Your task to perform on an android device: turn vacation reply on in the gmail app Image 0: 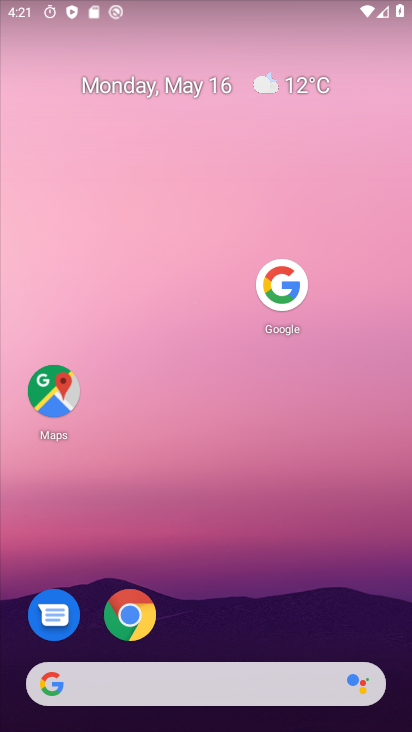
Step 0: drag from (222, 676) to (327, 12)
Your task to perform on an android device: turn vacation reply on in the gmail app Image 1: 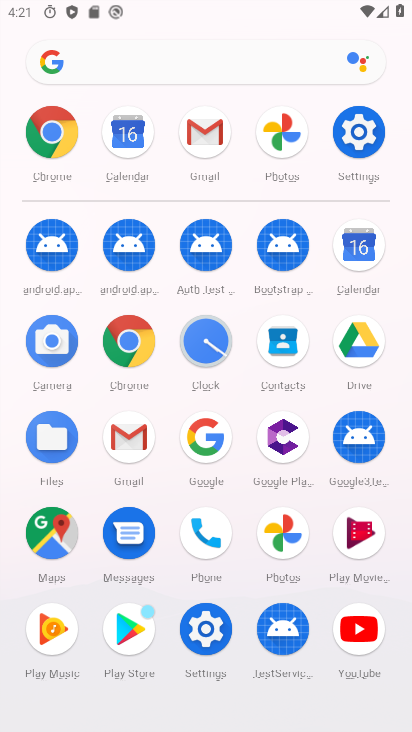
Step 1: click (120, 449)
Your task to perform on an android device: turn vacation reply on in the gmail app Image 2: 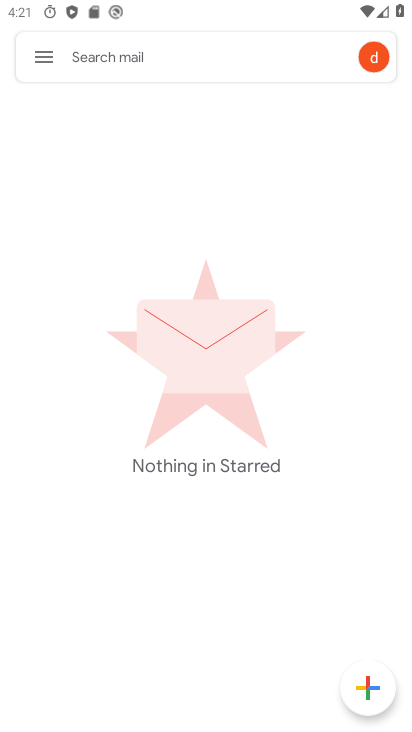
Step 2: click (50, 59)
Your task to perform on an android device: turn vacation reply on in the gmail app Image 3: 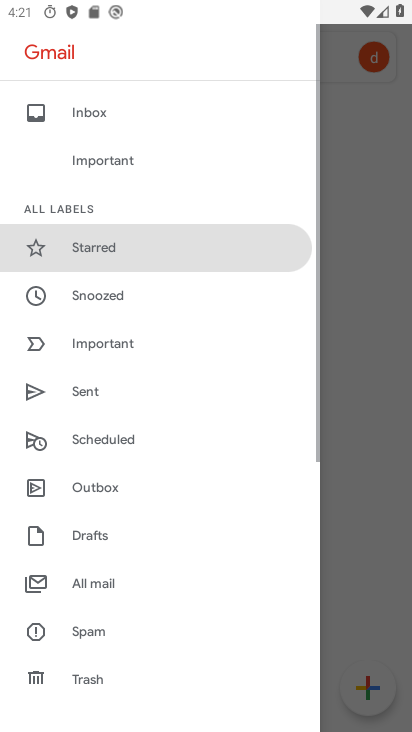
Step 3: drag from (176, 579) to (132, 59)
Your task to perform on an android device: turn vacation reply on in the gmail app Image 4: 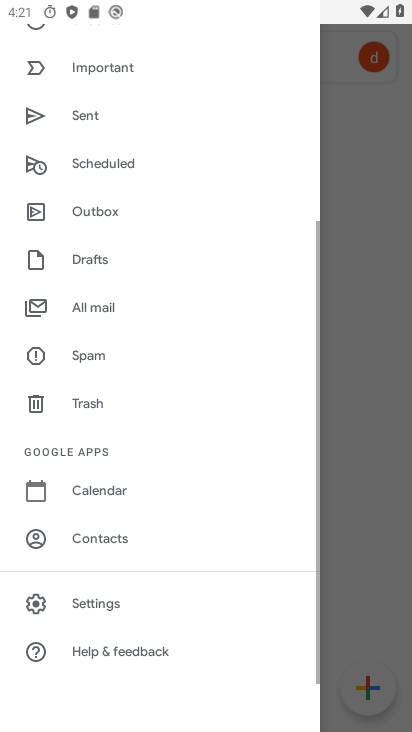
Step 4: click (101, 612)
Your task to perform on an android device: turn vacation reply on in the gmail app Image 5: 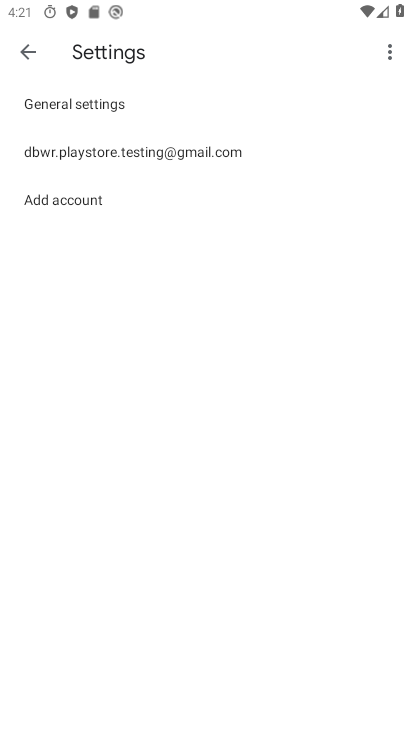
Step 5: click (153, 146)
Your task to perform on an android device: turn vacation reply on in the gmail app Image 6: 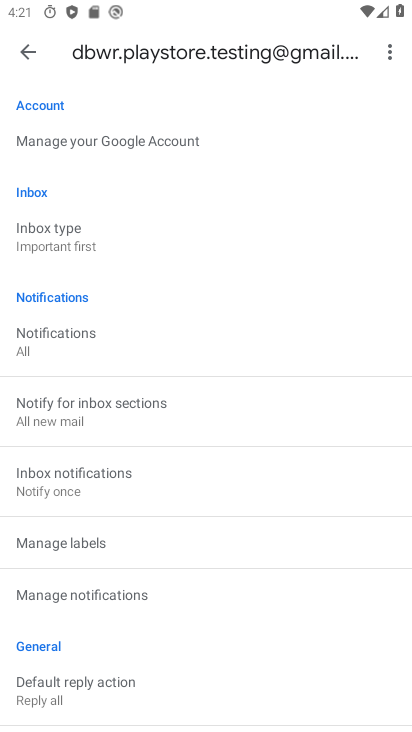
Step 6: drag from (186, 536) to (177, 185)
Your task to perform on an android device: turn vacation reply on in the gmail app Image 7: 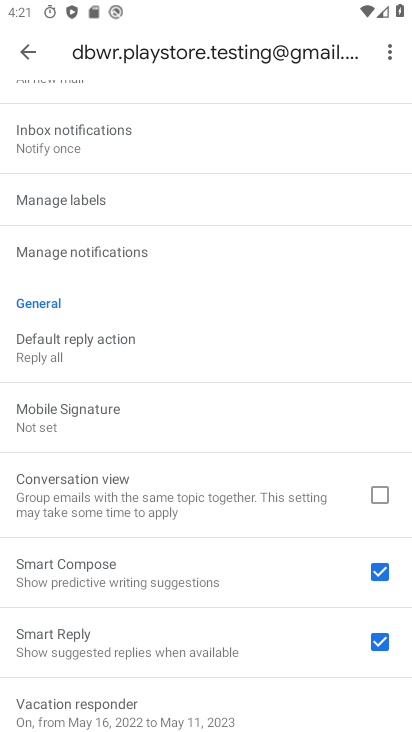
Step 7: drag from (134, 631) to (105, 413)
Your task to perform on an android device: turn vacation reply on in the gmail app Image 8: 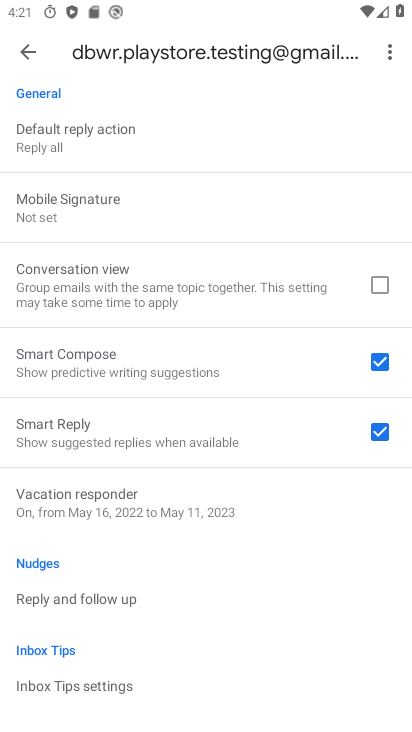
Step 8: click (134, 504)
Your task to perform on an android device: turn vacation reply on in the gmail app Image 9: 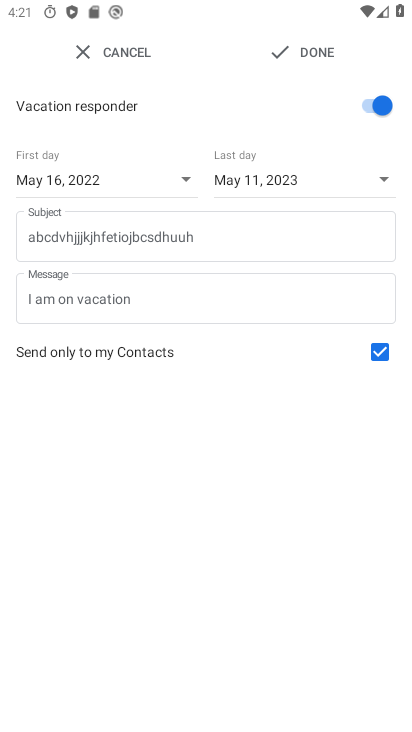
Step 9: click (306, 48)
Your task to perform on an android device: turn vacation reply on in the gmail app Image 10: 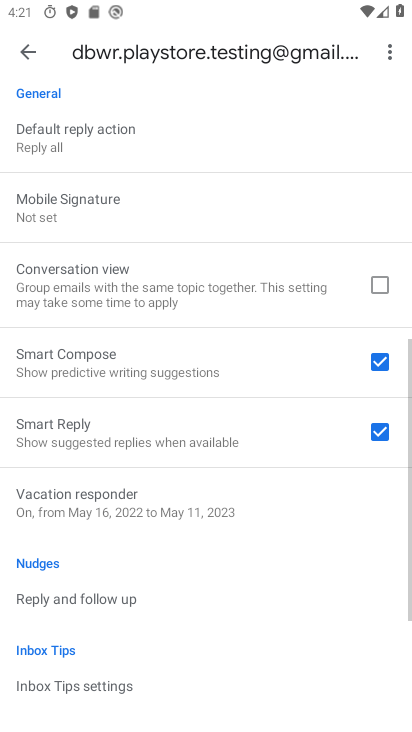
Step 10: task complete